Your task to perform on an android device: Open Google Maps Image 0: 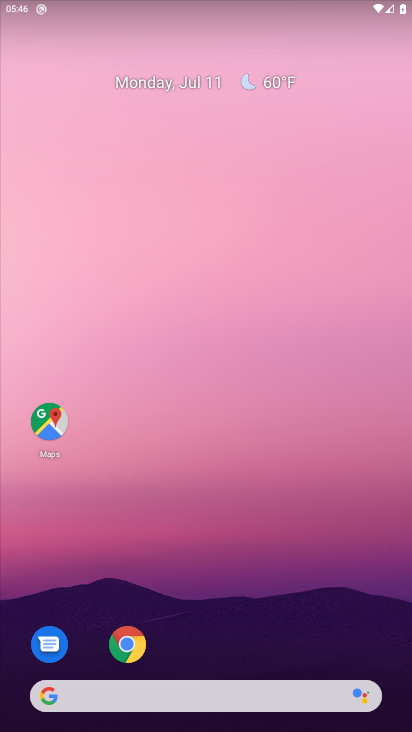
Step 0: click (38, 413)
Your task to perform on an android device: Open Google Maps Image 1: 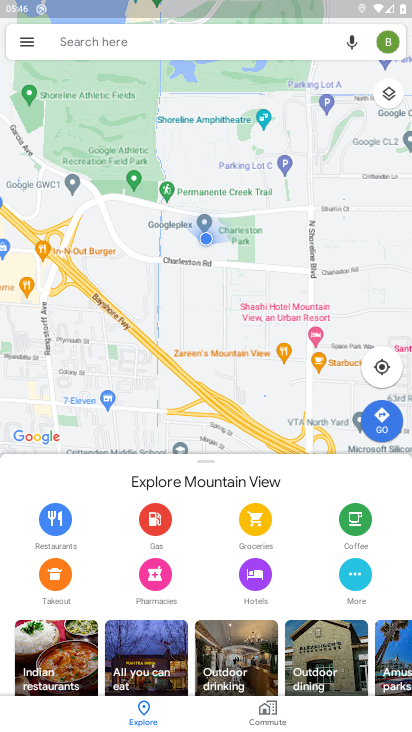
Step 1: task complete